Your task to perform on an android device: snooze an email in the gmail app Image 0: 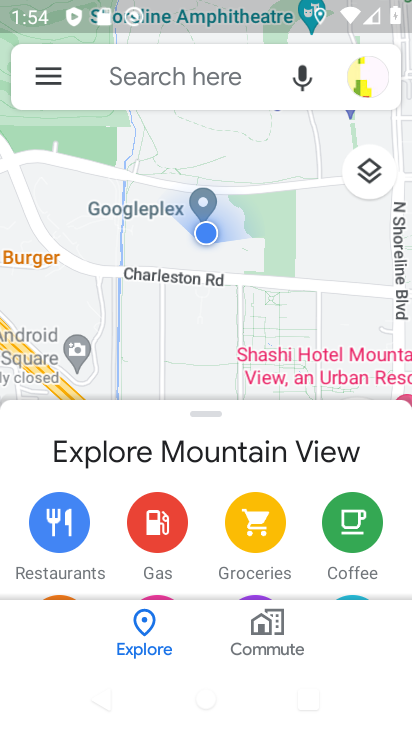
Step 0: press home button
Your task to perform on an android device: snooze an email in the gmail app Image 1: 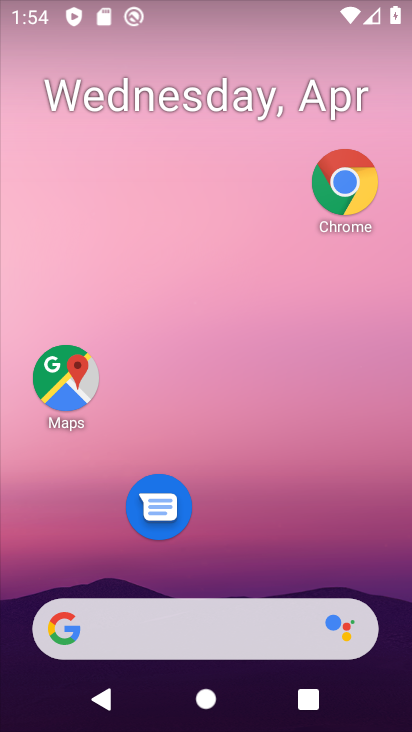
Step 1: drag from (251, 629) to (245, 64)
Your task to perform on an android device: snooze an email in the gmail app Image 2: 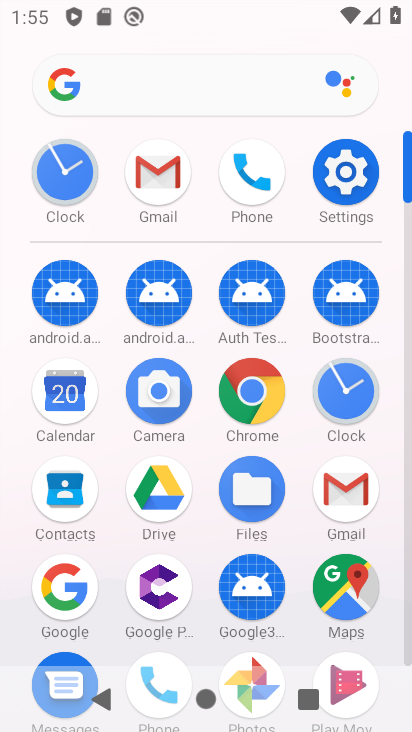
Step 2: click (154, 168)
Your task to perform on an android device: snooze an email in the gmail app Image 3: 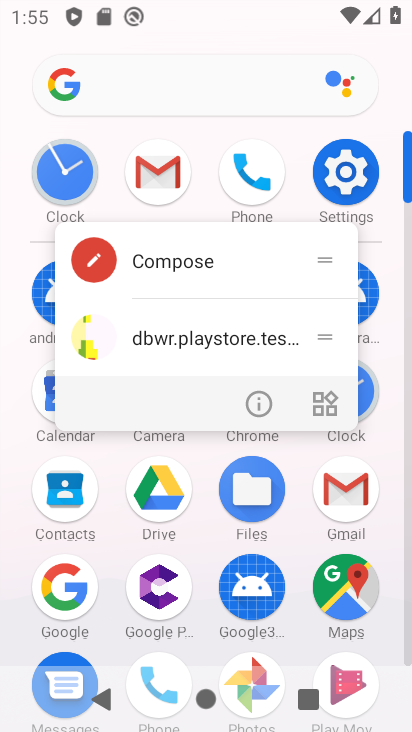
Step 3: click (154, 168)
Your task to perform on an android device: snooze an email in the gmail app Image 4: 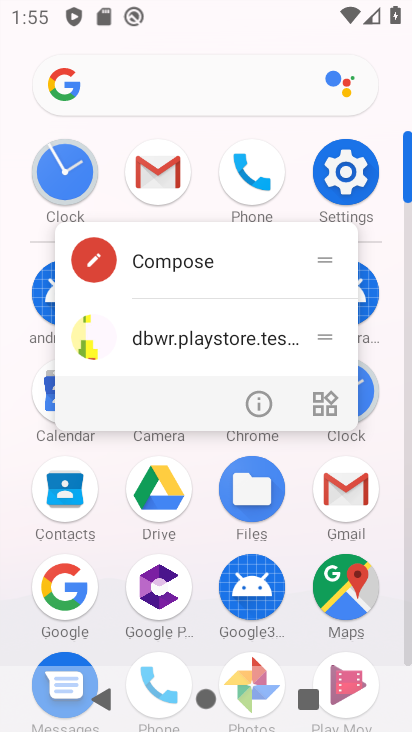
Step 4: click (154, 168)
Your task to perform on an android device: snooze an email in the gmail app Image 5: 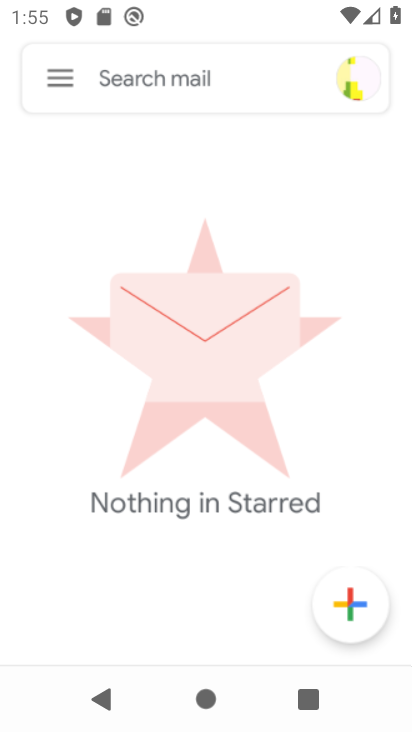
Step 5: click (154, 168)
Your task to perform on an android device: snooze an email in the gmail app Image 6: 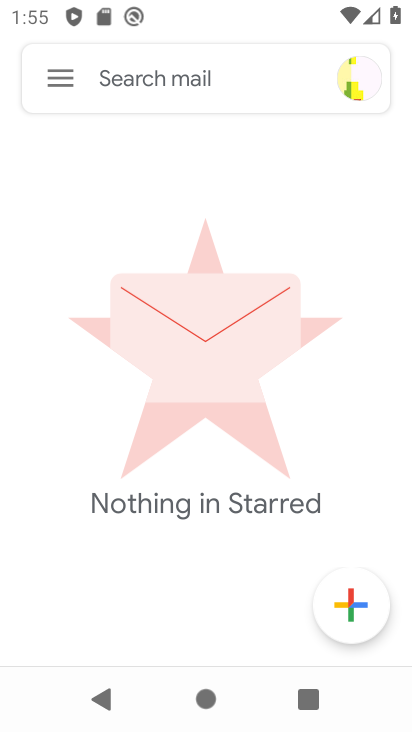
Step 6: click (154, 168)
Your task to perform on an android device: snooze an email in the gmail app Image 7: 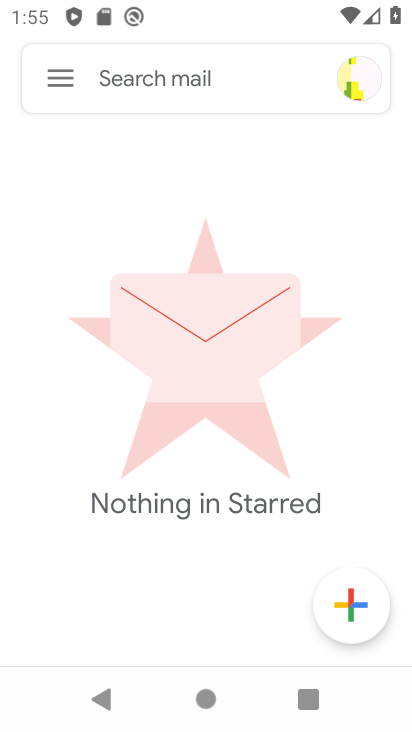
Step 7: click (74, 62)
Your task to perform on an android device: snooze an email in the gmail app Image 8: 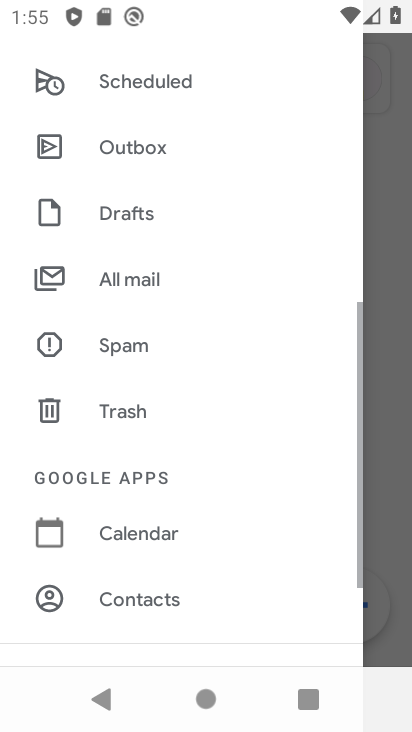
Step 8: click (103, 271)
Your task to perform on an android device: snooze an email in the gmail app Image 9: 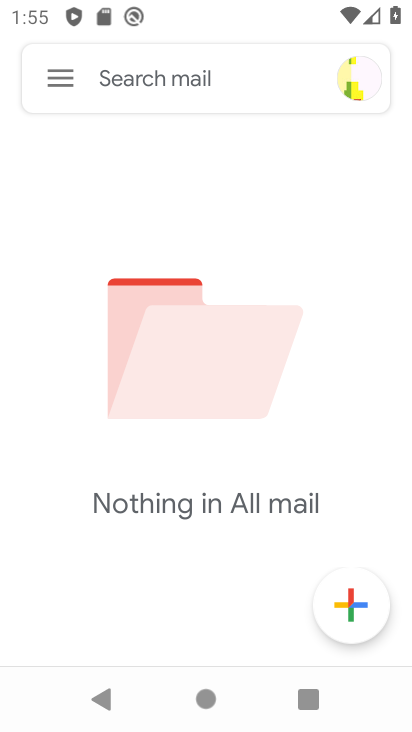
Step 9: task complete